Your task to perform on an android device: Open Google Maps Image 0: 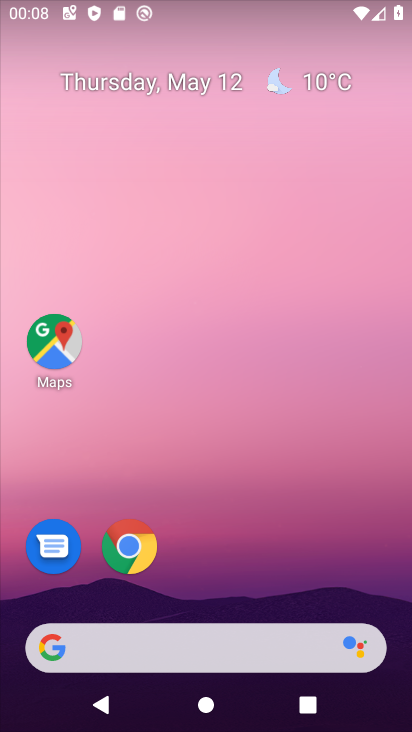
Step 0: click (49, 338)
Your task to perform on an android device: Open Google Maps Image 1: 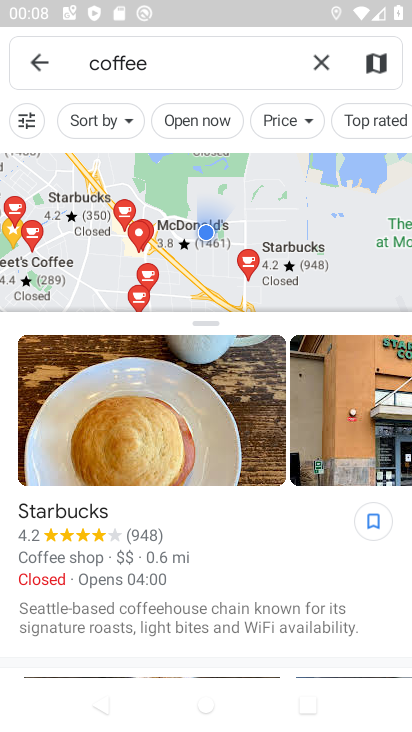
Step 1: task complete